Your task to perform on an android device: When is my next meeting? Image 0: 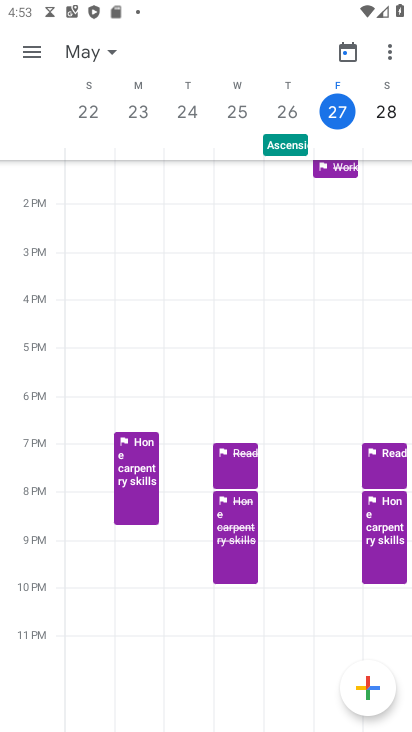
Step 0: drag from (39, 122) to (38, 67)
Your task to perform on an android device: When is my next meeting? Image 1: 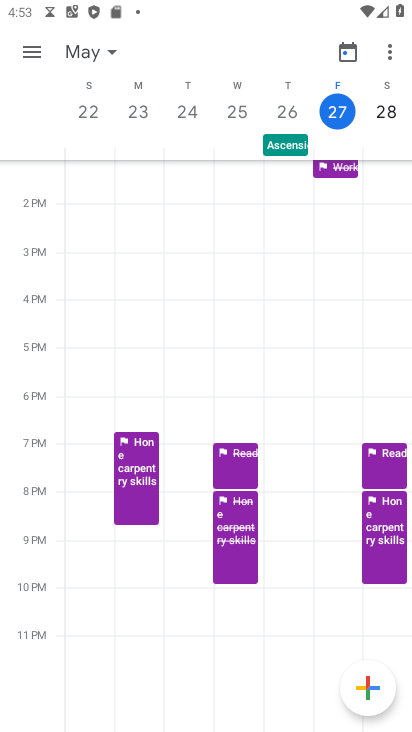
Step 1: task complete